Your task to perform on an android device: Go to accessibility settings Image 0: 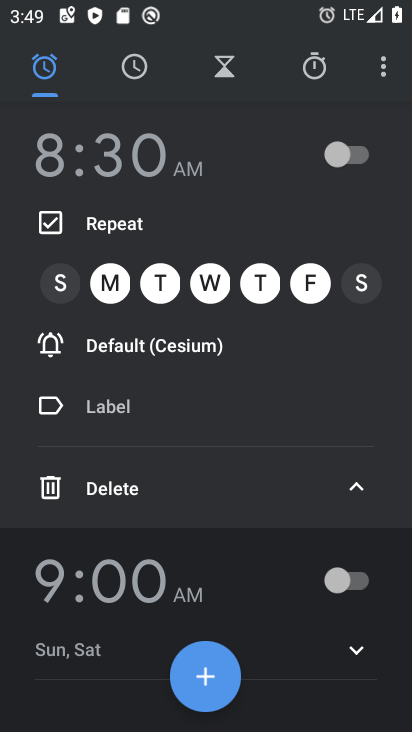
Step 0: press home button
Your task to perform on an android device: Go to accessibility settings Image 1: 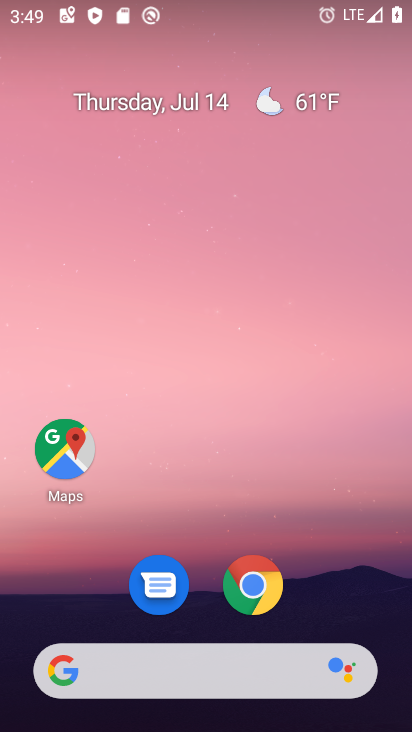
Step 1: drag from (354, 528) to (403, 85)
Your task to perform on an android device: Go to accessibility settings Image 2: 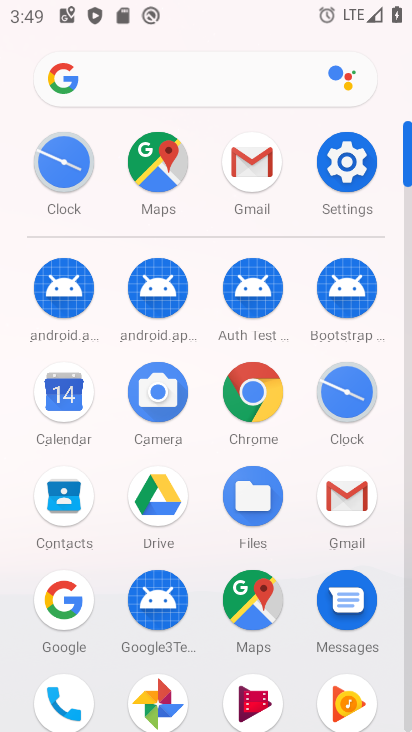
Step 2: click (354, 154)
Your task to perform on an android device: Go to accessibility settings Image 3: 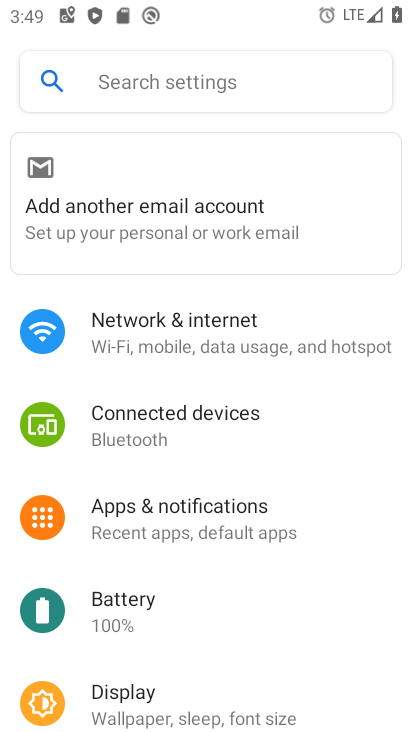
Step 3: drag from (246, 587) to (258, 96)
Your task to perform on an android device: Go to accessibility settings Image 4: 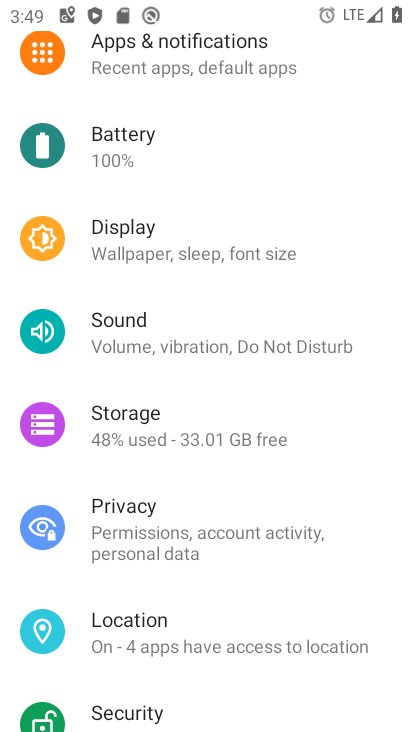
Step 4: drag from (230, 565) to (225, 241)
Your task to perform on an android device: Go to accessibility settings Image 5: 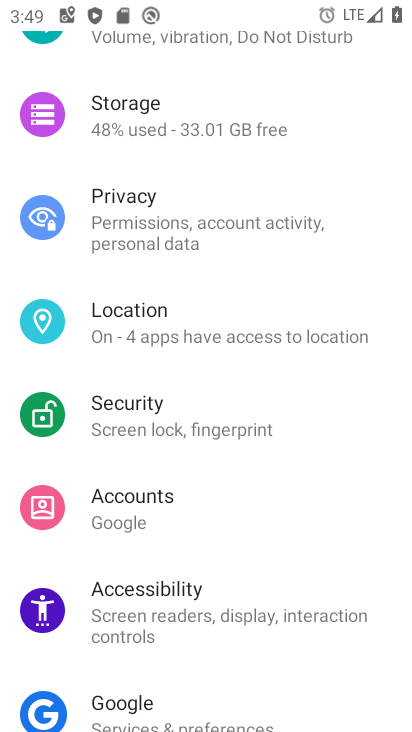
Step 5: click (201, 610)
Your task to perform on an android device: Go to accessibility settings Image 6: 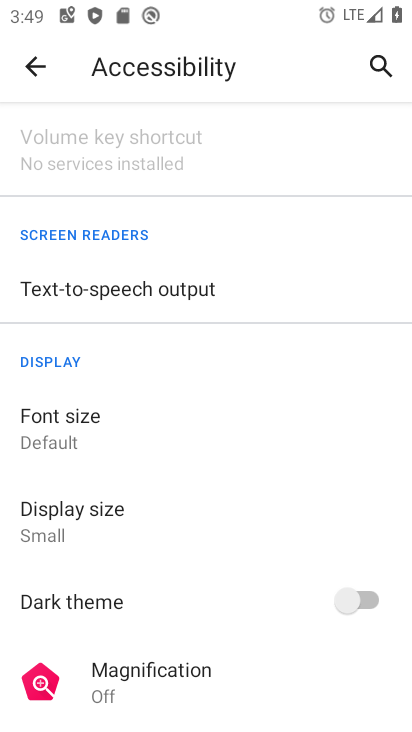
Step 6: task complete